Your task to perform on an android device: Open CNN.com Image 0: 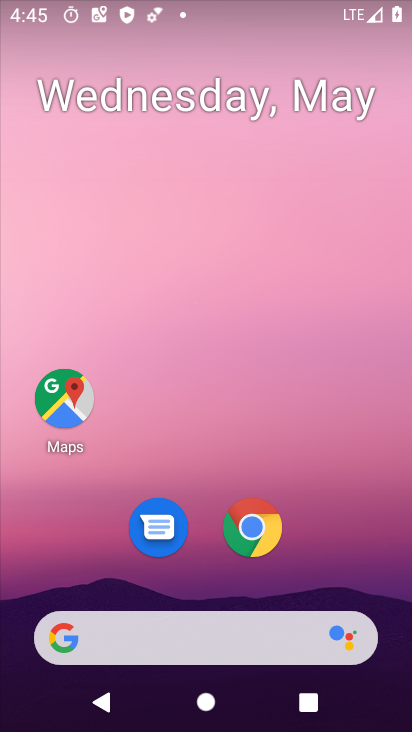
Step 0: click (262, 536)
Your task to perform on an android device: Open CNN.com Image 1: 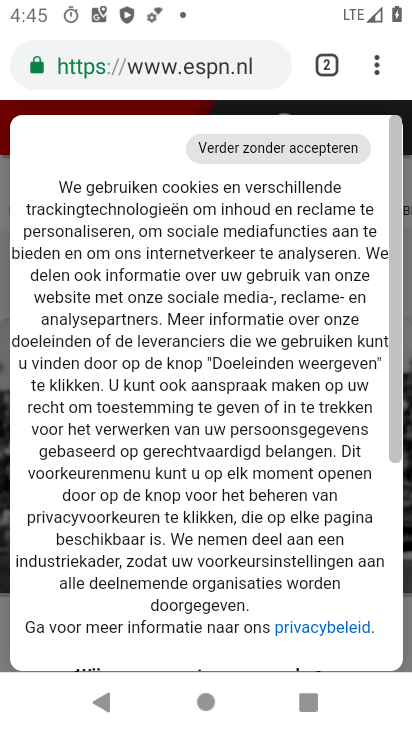
Step 1: drag from (373, 70) to (129, 136)
Your task to perform on an android device: Open CNN.com Image 2: 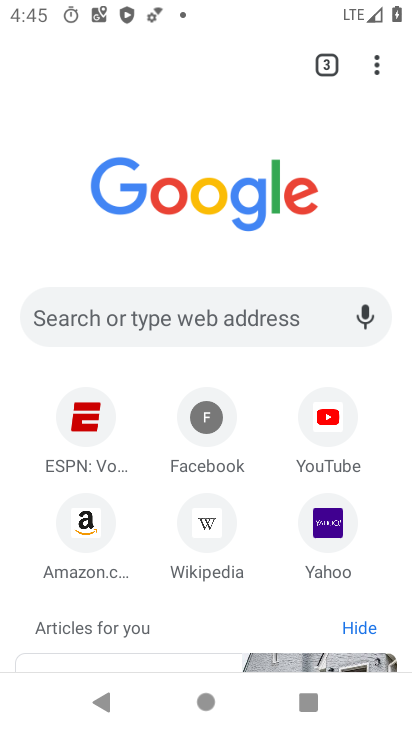
Step 2: click (177, 315)
Your task to perform on an android device: Open CNN.com Image 3: 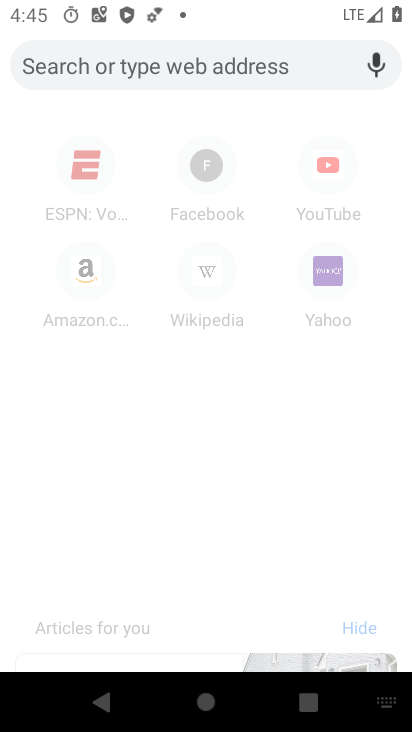
Step 3: type " CNN.com"
Your task to perform on an android device: Open CNN.com Image 4: 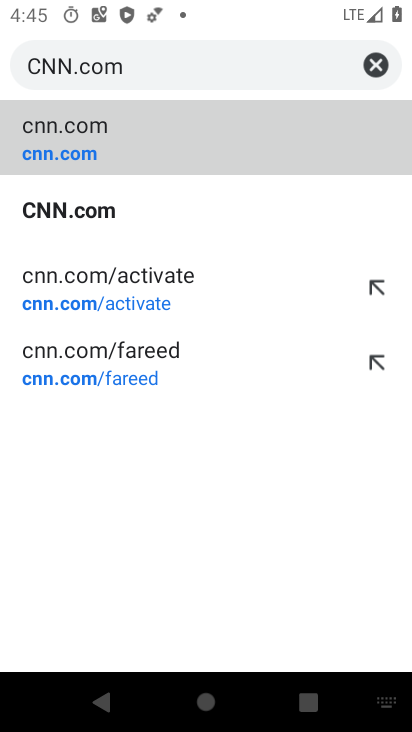
Step 4: click (55, 156)
Your task to perform on an android device: Open CNN.com Image 5: 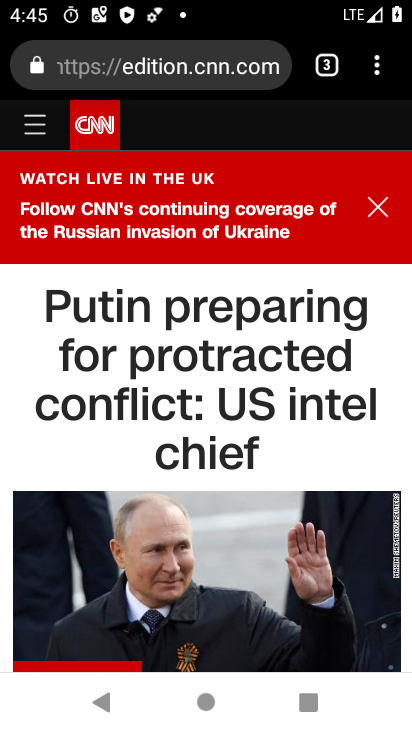
Step 5: task complete